Your task to perform on an android device: open app "Airtel Thanks" (install if not already installed) and enter user name: "acclaimed@inbox.com" and password: "dichotomize" Image 0: 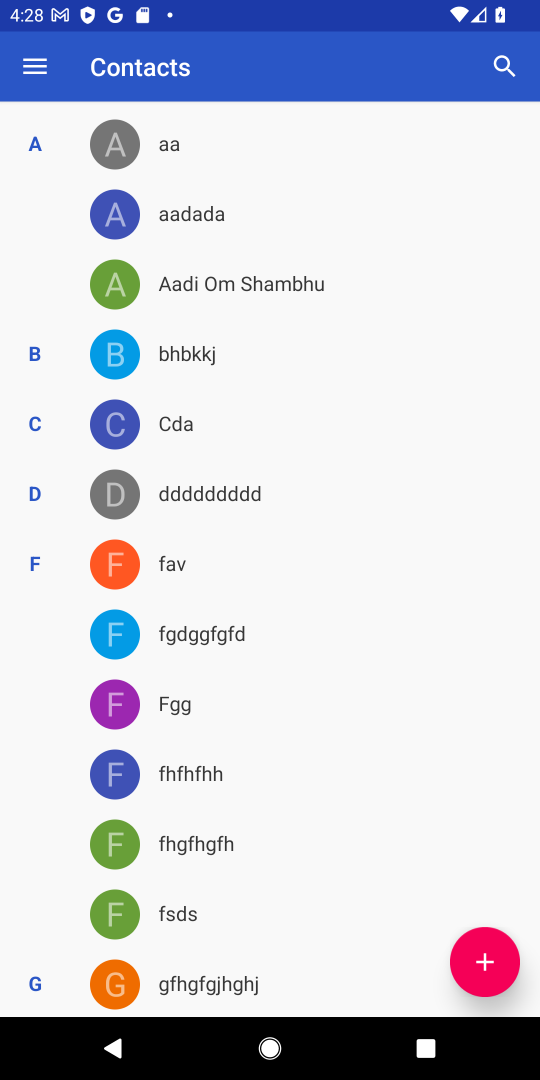
Step 0: press home button
Your task to perform on an android device: open app "Airtel Thanks" (install if not already installed) and enter user name: "acclaimed@inbox.com" and password: "dichotomize" Image 1: 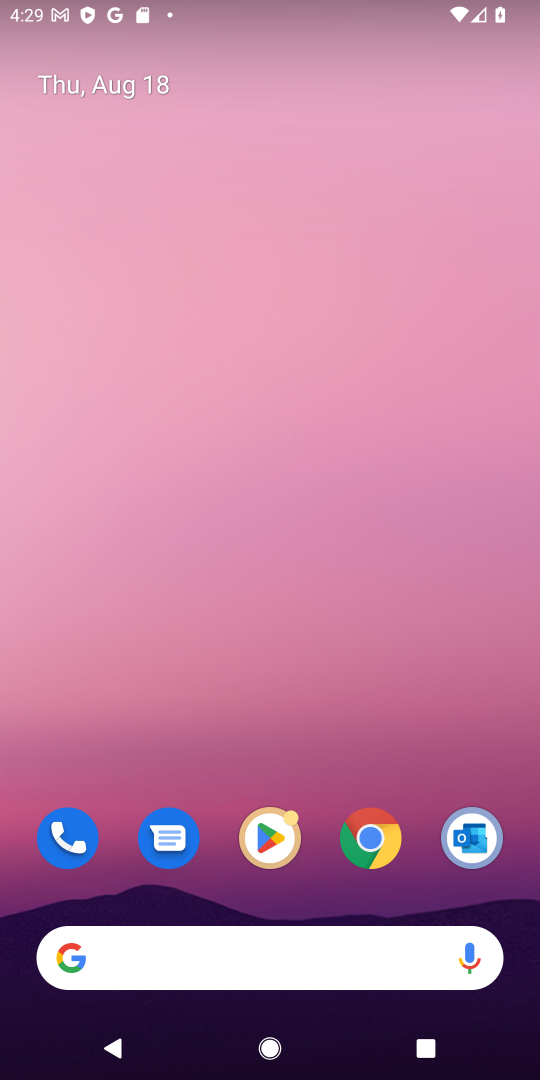
Step 1: drag from (228, 962) to (340, 168)
Your task to perform on an android device: open app "Airtel Thanks" (install if not already installed) and enter user name: "acclaimed@inbox.com" and password: "dichotomize" Image 2: 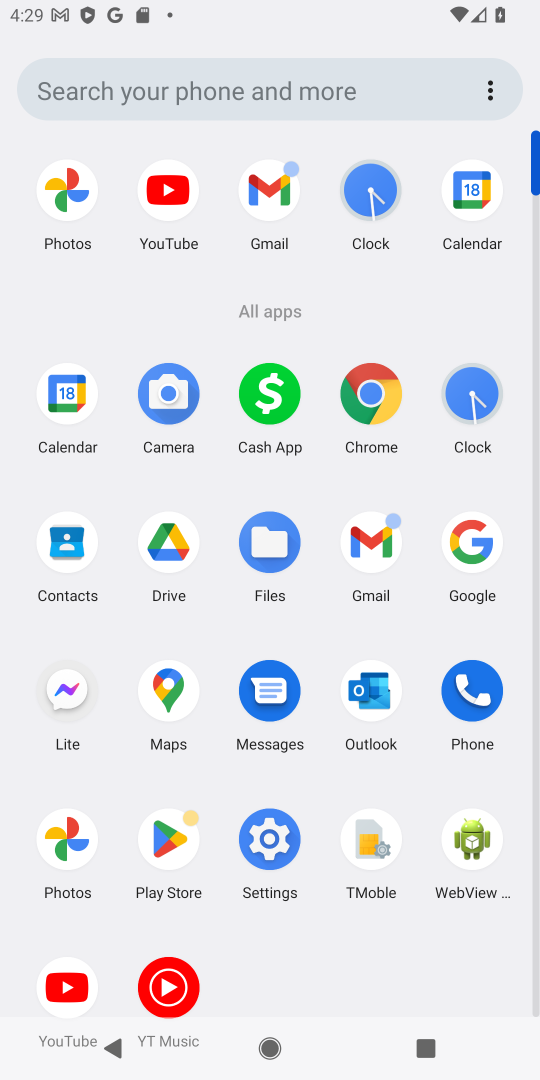
Step 2: click (179, 838)
Your task to perform on an android device: open app "Airtel Thanks" (install if not already installed) and enter user name: "acclaimed@inbox.com" and password: "dichotomize" Image 3: 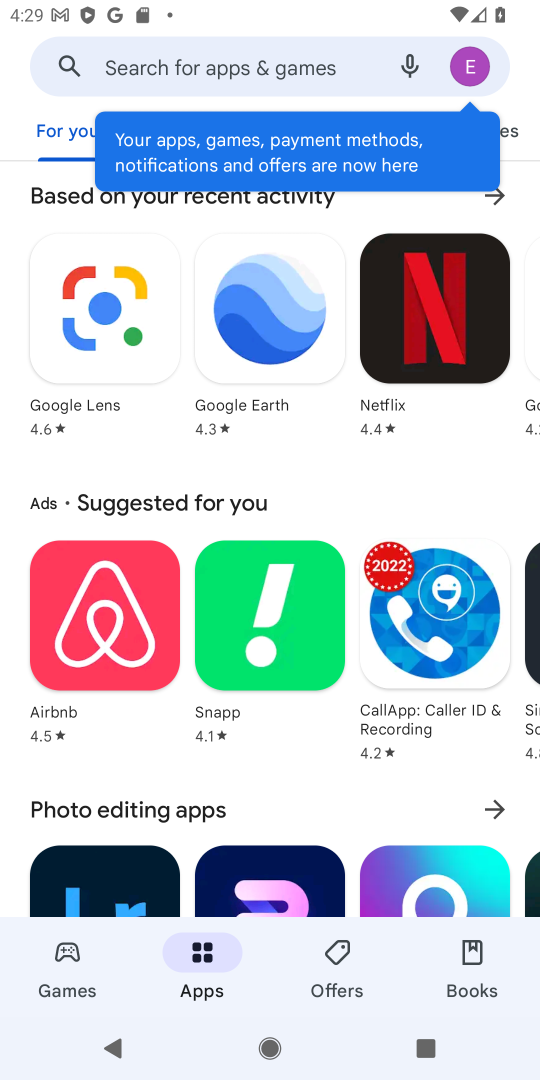
Step 3: click (224, 72)
Your task to perform on an android device: open app "Airtel Thanks" (install if not already installed) and enter user name: "acclaimed@inbox.com" and password: "dichotomize" Image 4: 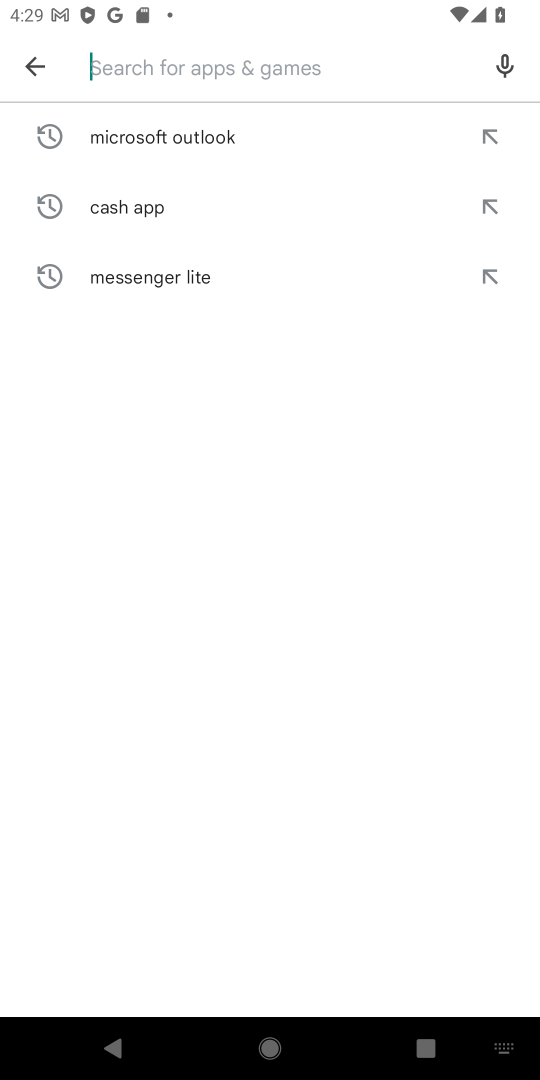
Step 4: type "Airtel Thanks"
Your task to perform on an android device: open app "Airtel Thanks" (install if not already installed) and enter user name: "acclaimed@inbox.com" and password: "dichotomize" Image 5: 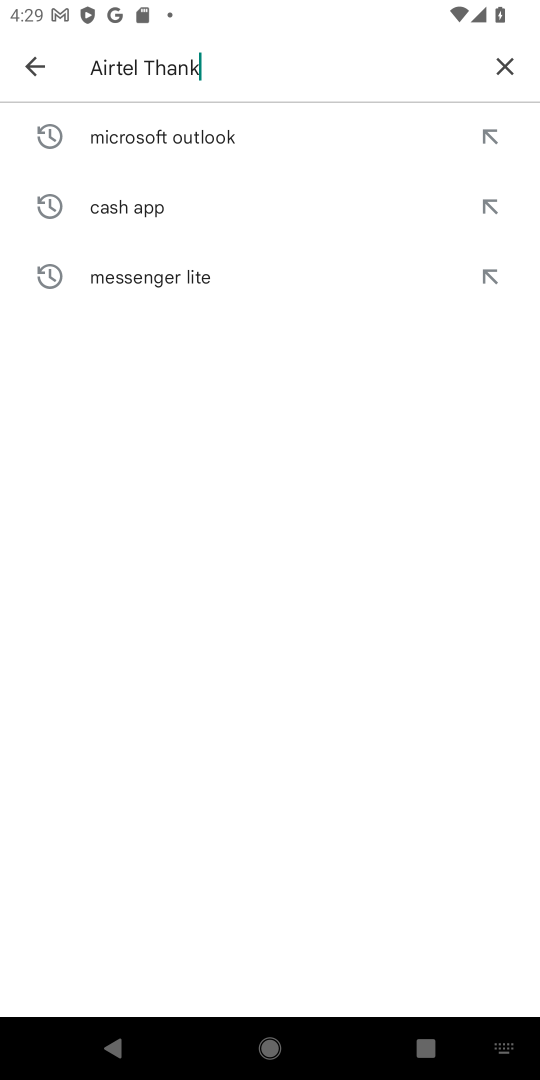
Step 5: type ""
Your task to perform on an android device: open app "Airtel Thanks" (install if not already installed) and enter user name: "acclaimed@inbox.com" and password: "dichotomize" Image 6: 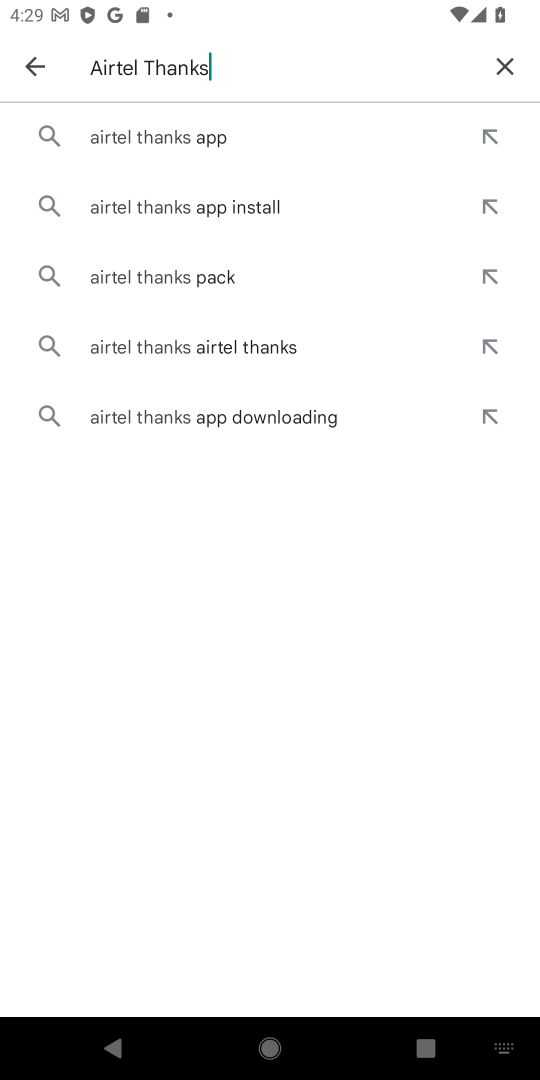
Step 6: click (161, 143)
Your task to perform on an android device: open app "Airtel Thanks" (install if not already installed) and enter user name: "acclaimed@inbox.com" and password: "dichotomize" Image 7: 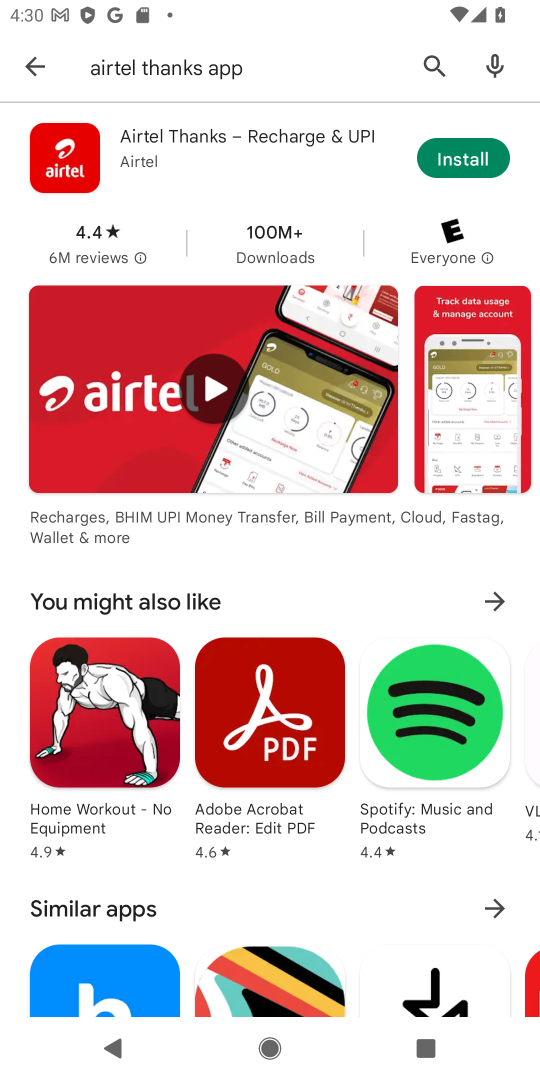
Step 7: click (480, 168)
Your task to perform on an android device: open app "Airtel Thanks" (install if not already installed) and enter user name: "acclaimed@inbox.com" and password: "dichotomize" Image 8: 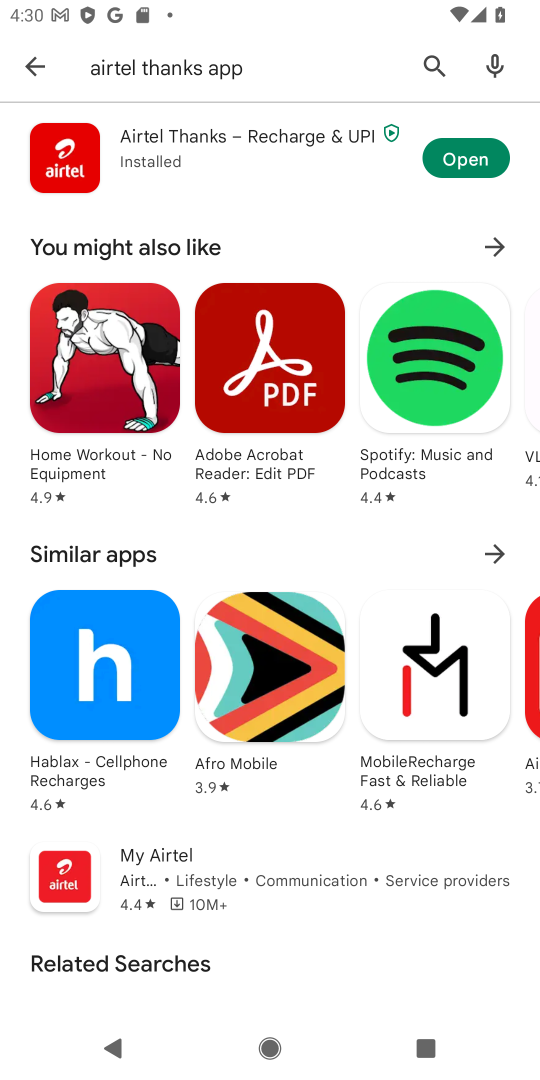
Step 8: click (471, 161)
Your task to perform on an android device: open app "Airtel Thanks" (install if not already installed) and enter user name: "acclaimed@inbox.com" and password: "dichotomize" Image 9: 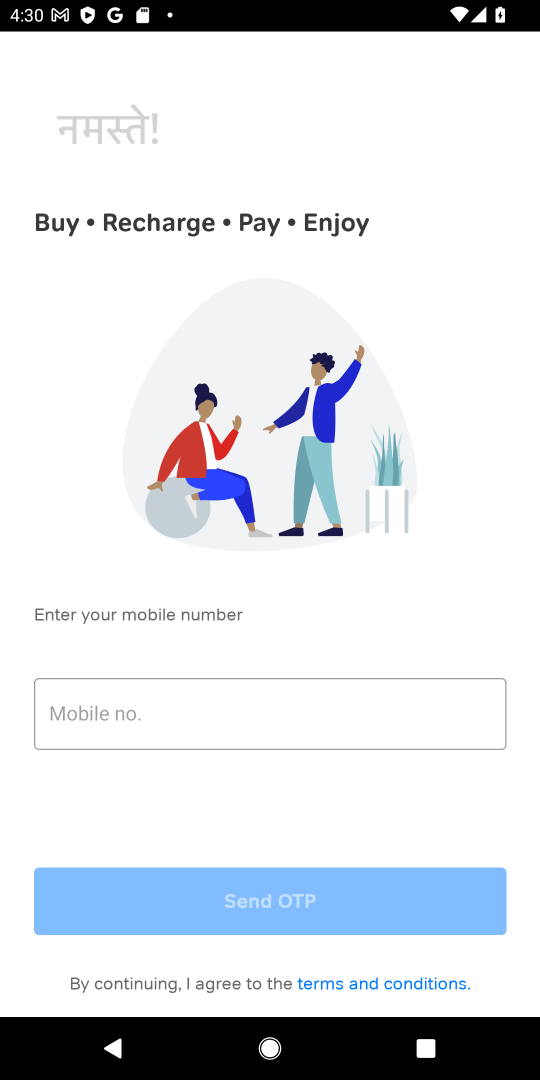
Step 9: click (90, 727)
Your task to perform on an android device: open app "Airtel Thanks" (install if not already installed) and enter user name: "acclaimed@inbox.com" and password: "dichotomize" Image 10: 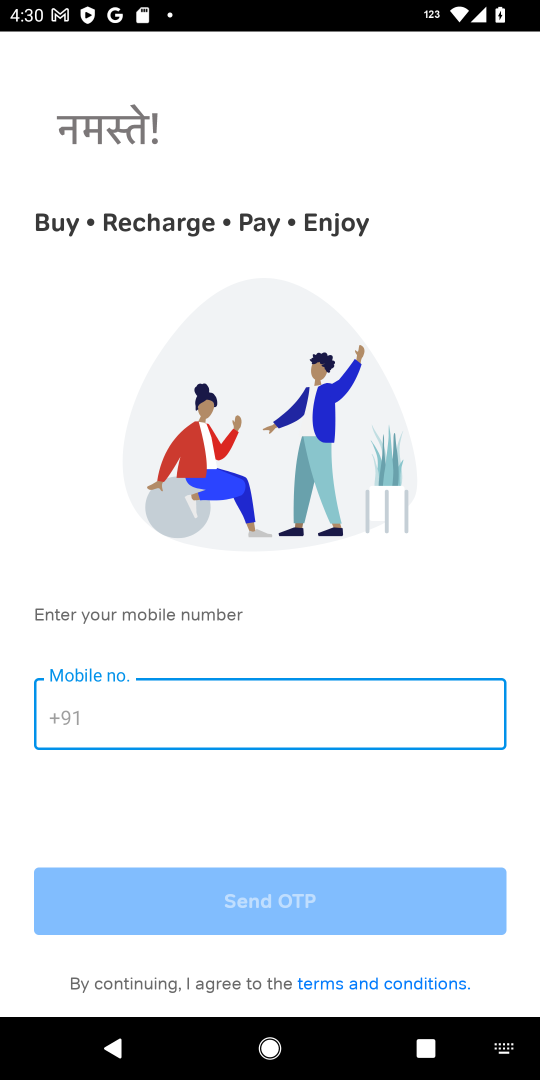
Step 10: task complete